Your task to perform on an android device: Go to sound settings Image 0: 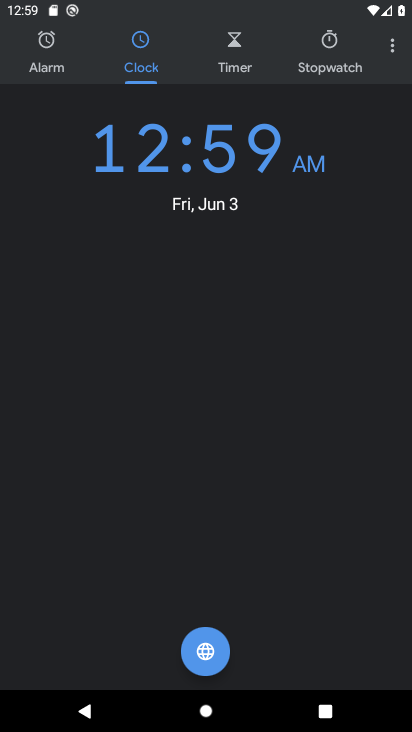
Step 0: press home button
Your task to perform on an android device: Go to sound settings Image 1: 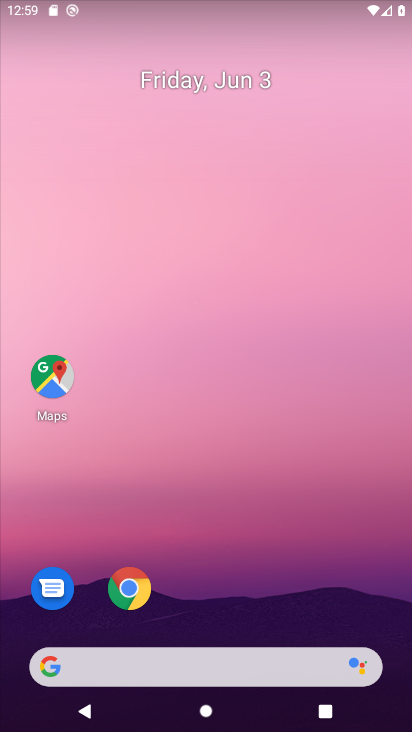
Step 1: drag from (254, 612) to (236, 205)
Your task to perform on an android device: Go to sound settings Image 2: 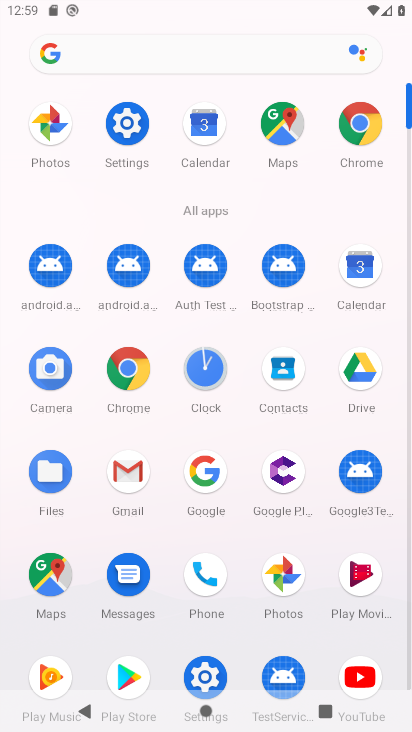
Step 2: click (133, 138)
Your task to perform on an android device: Go to sound settings Image 3: 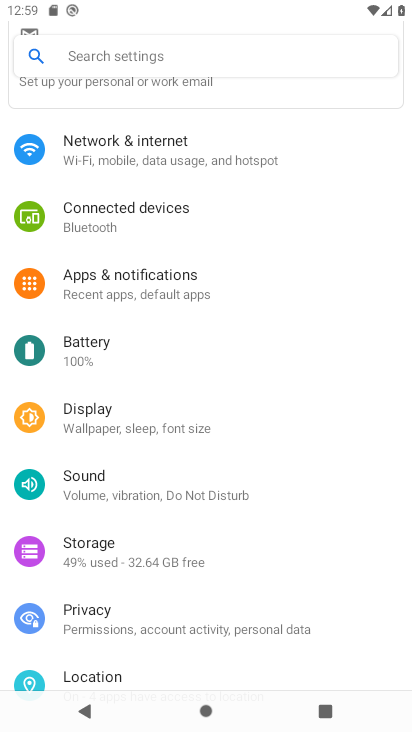
Step 3: click (144, 478)
Your task to perform on an android device: Go to sound settings Image 4: 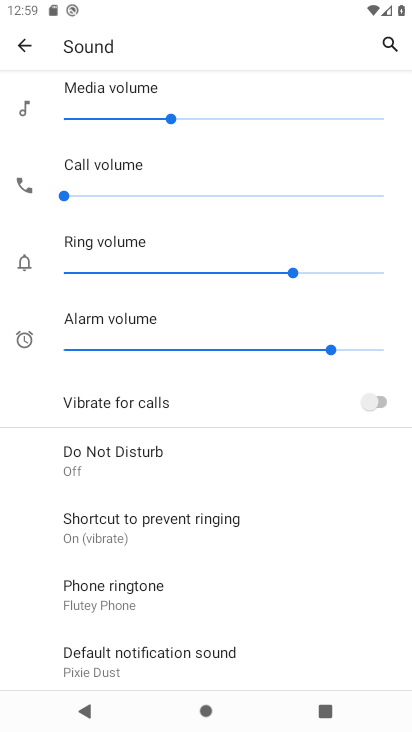
Step 4: task complete